Your task to perform on an android device: check data usage Image 0: 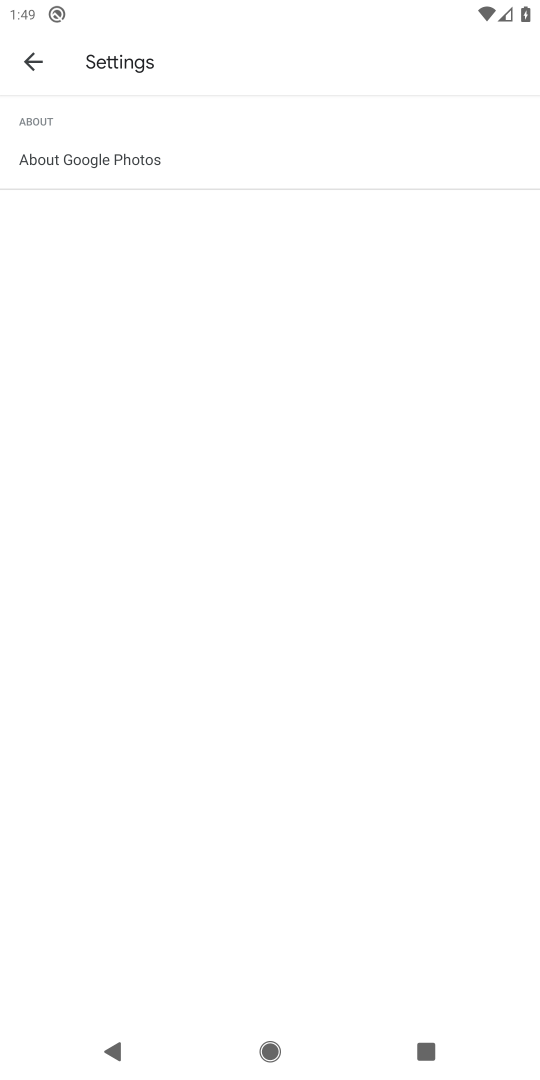
Step 0: press home button
Your task to perform on an android device: check data usage Image 1: 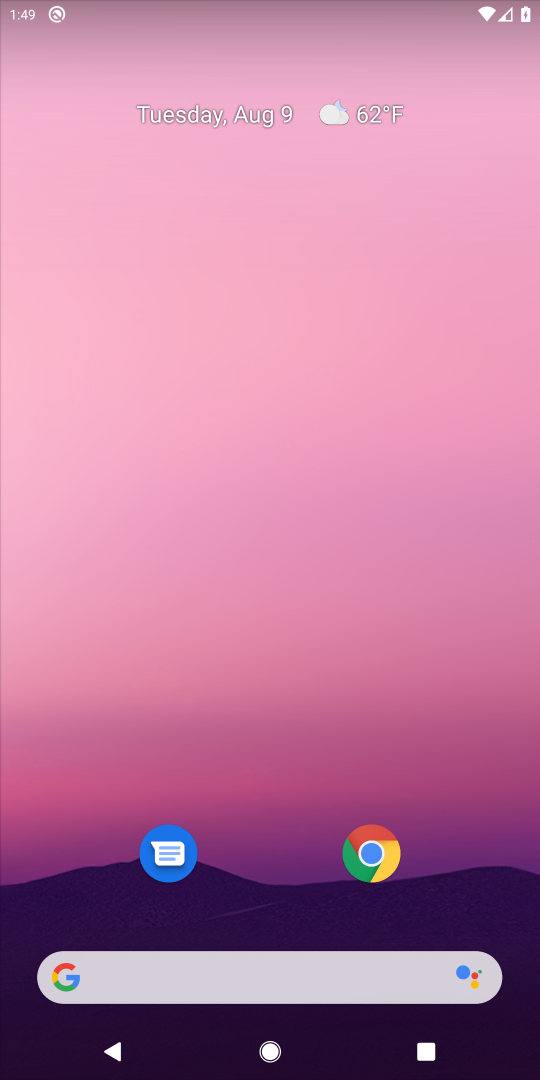
Step 1: drag from (274, 659) to (280, 29)
Your task to perform on an android device: check data usage Image 2: 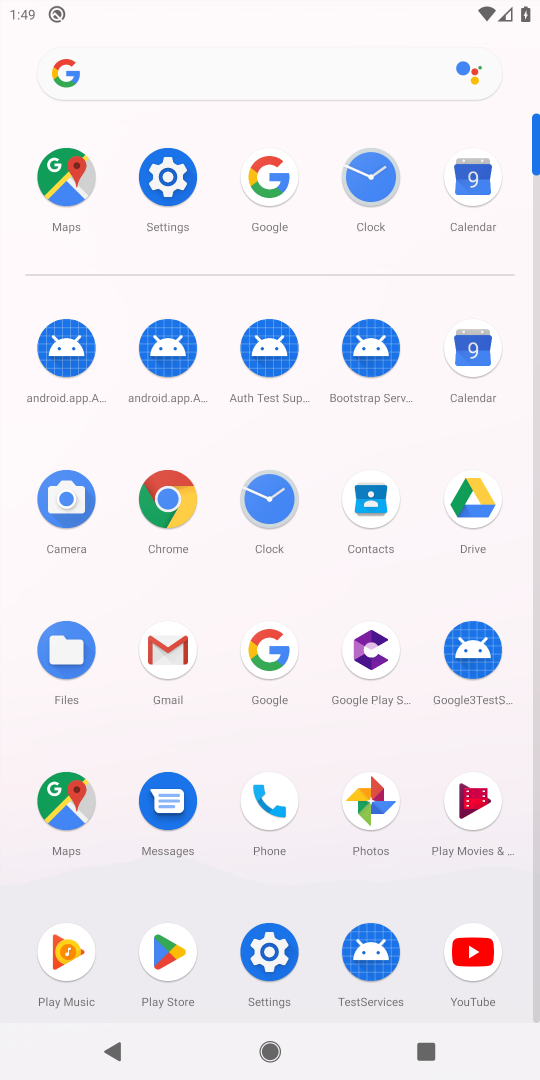
Step 2: click (165, 173)
Your task to perform on an android device: check data usage Image 3: 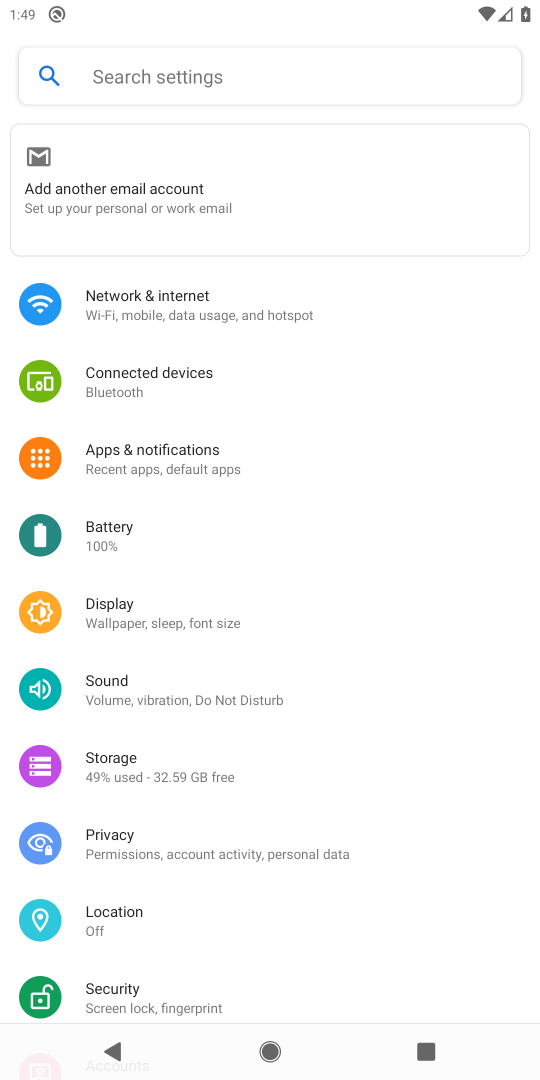
Step 3: click (140, 307)
Your task to perform on an android device: check data usage Image 4: 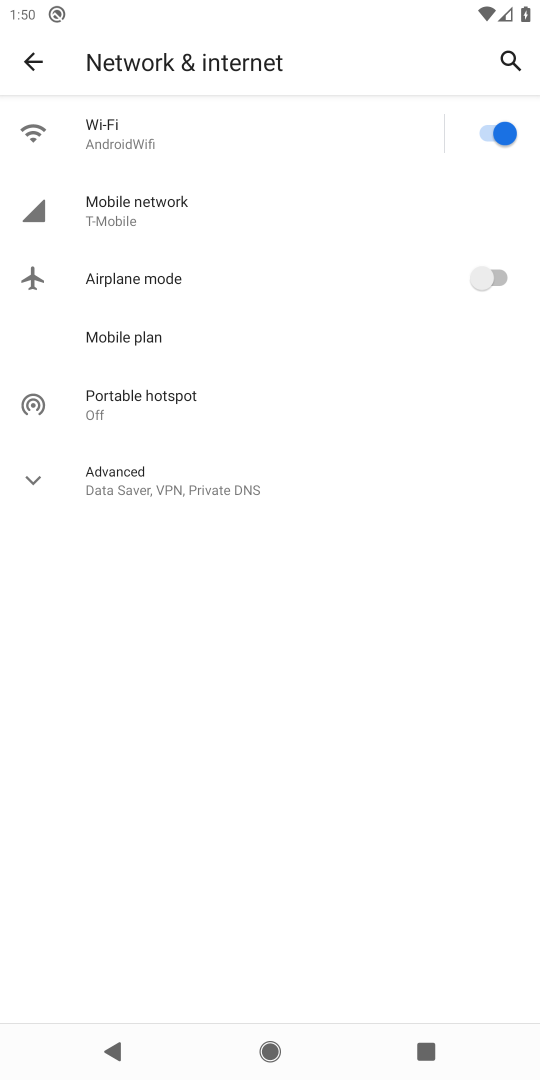
Step 4: click (147, 222)
Your task to perform on an android device: check data usage Image 5: 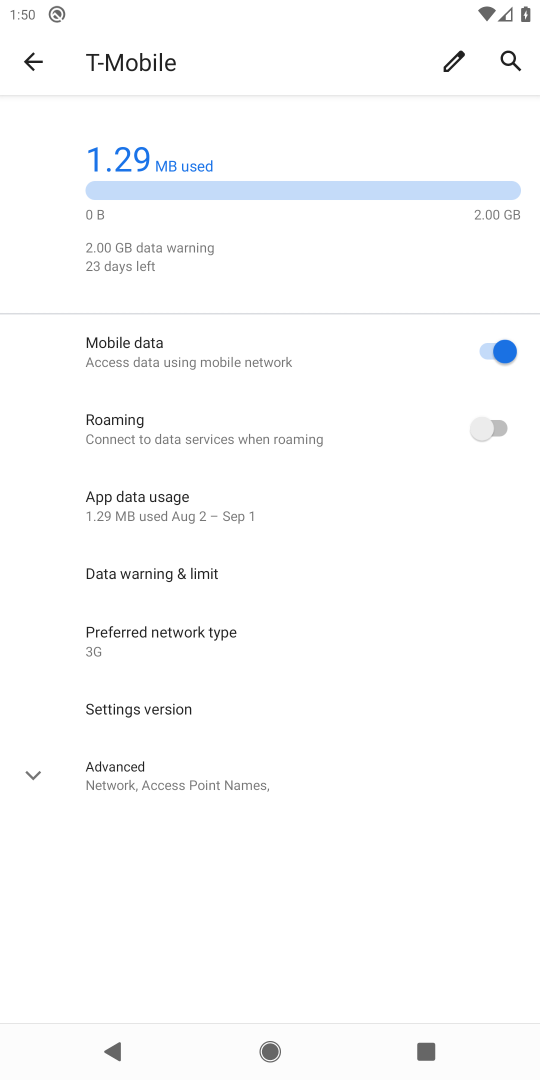
Step 5: task complete